Your task to perform on an android device: Open battery settings Image 0: 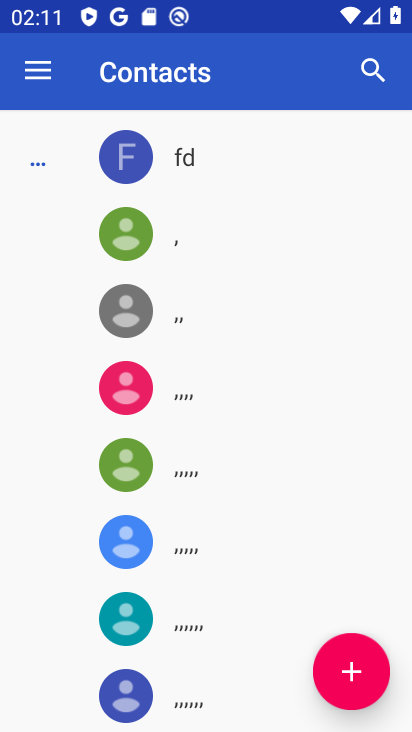
Step 0: press home button
Your task to perform on an android device: Open battery settings Image 1: 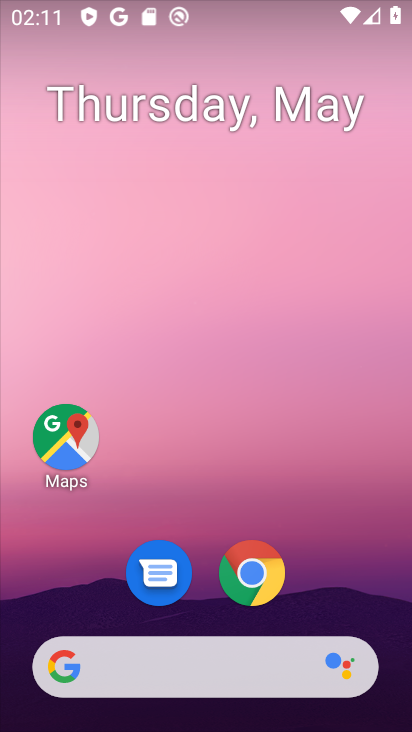
Step 1: drag from (316, 569) to (314, 253)
Your task to perform on an android device: Open battery settings Image 2: 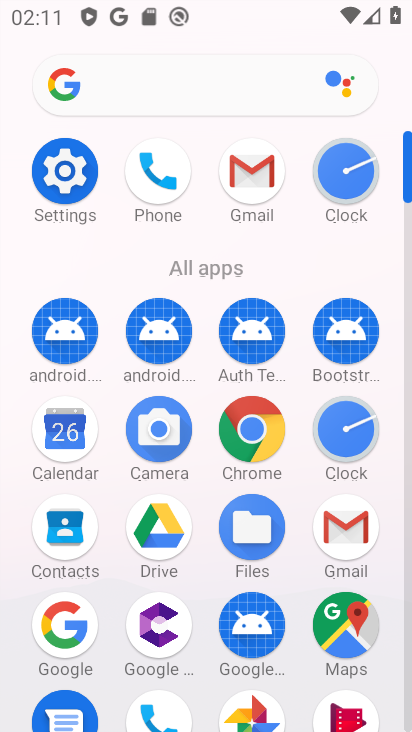
Step 2: click (50, 155)
Your task to perform on an android device: Open battery settings Image 3: 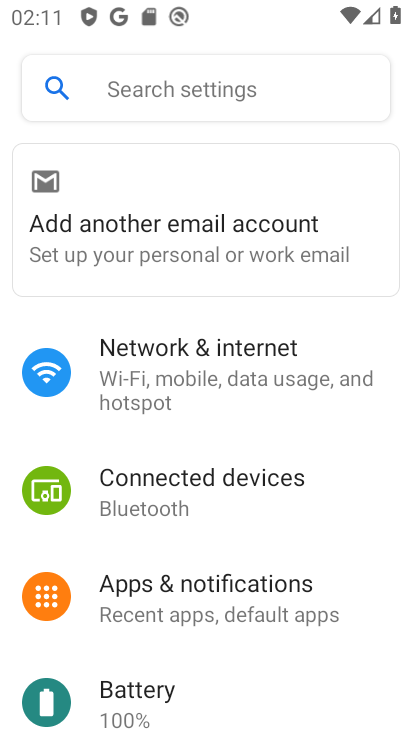
Step 3: click (167, 691)
Your task to perform on an android device: Open battery settings Image 4: 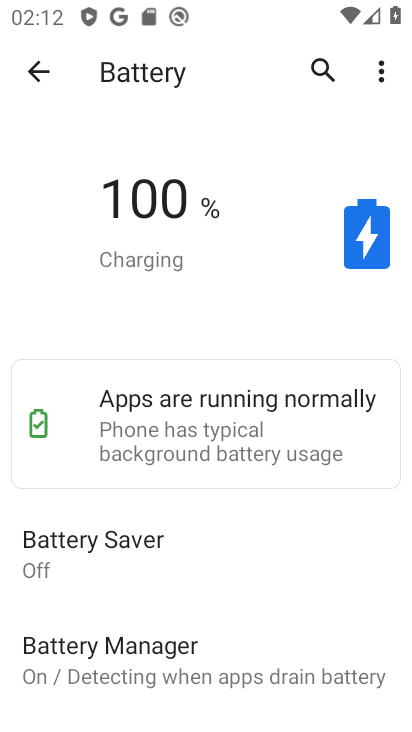
Step 4: task complete